Your task to perform on an android device: open a bookmark in the chrome app Image 0: 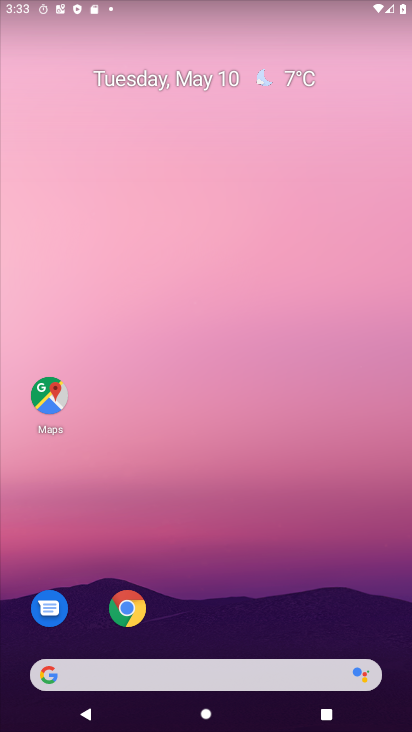
Step 0: click (130, 610)
Your task to perform on an android device: open a bookmark in the chrome app Image 1: 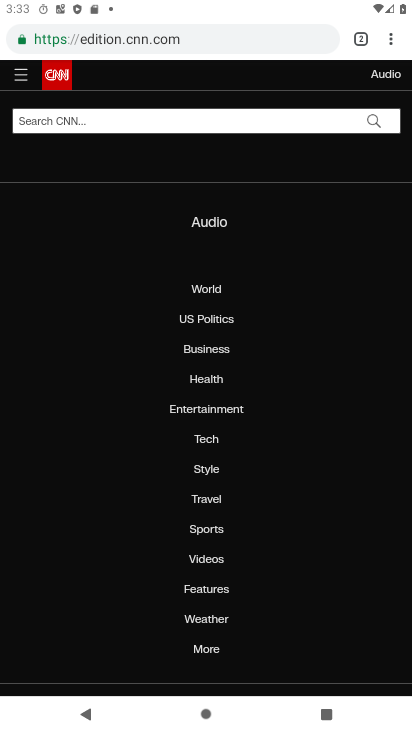
Step 1: drag from (394, 44) to (270, 150)
Your task to perform on an android device: open a bookmark in the chrome app Image 2: 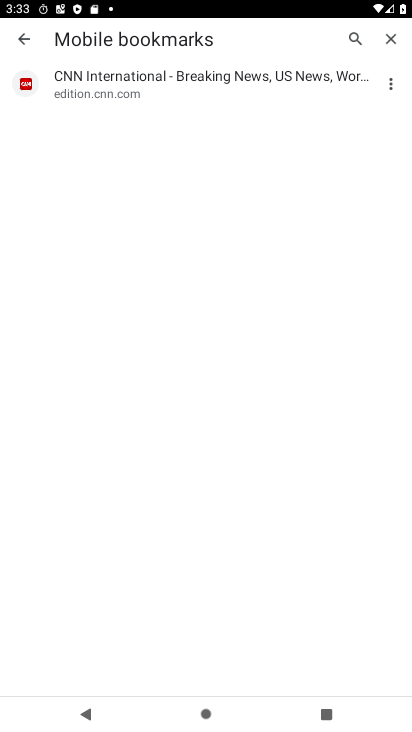
Step 2: click (110, 87)
Your task to perform on an android device: open a bookmark in the chrome app Image 3: 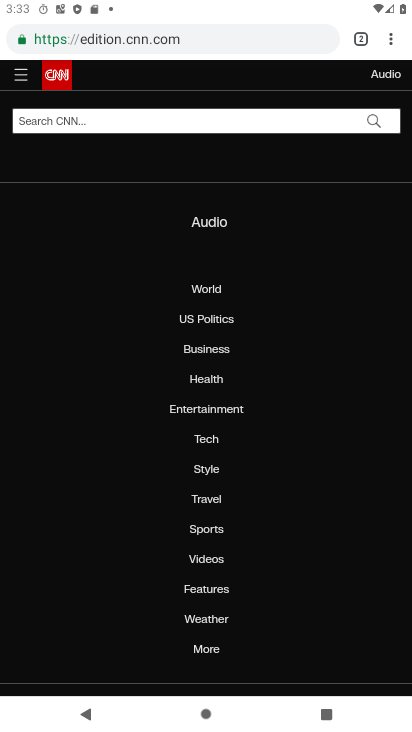
Step 3: task complete